Your task to perform on an android device: Clear the cart on target.com. Search for usb-c to usb-a on target.com, select the first entry, add it to the cart, then select checkout. Image 0: 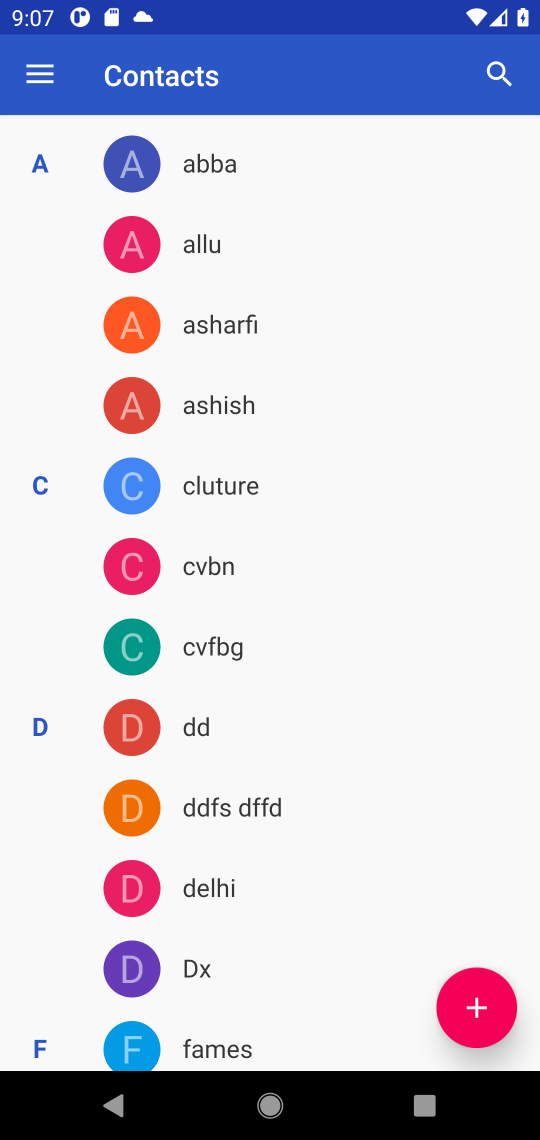
Step 0: press home button
Your task to perform on an android device: Clear the cart on target.com. Search for usb-c to usb-a on target.com, select the first entry, add it to the cart, then select checkout. Image 1: 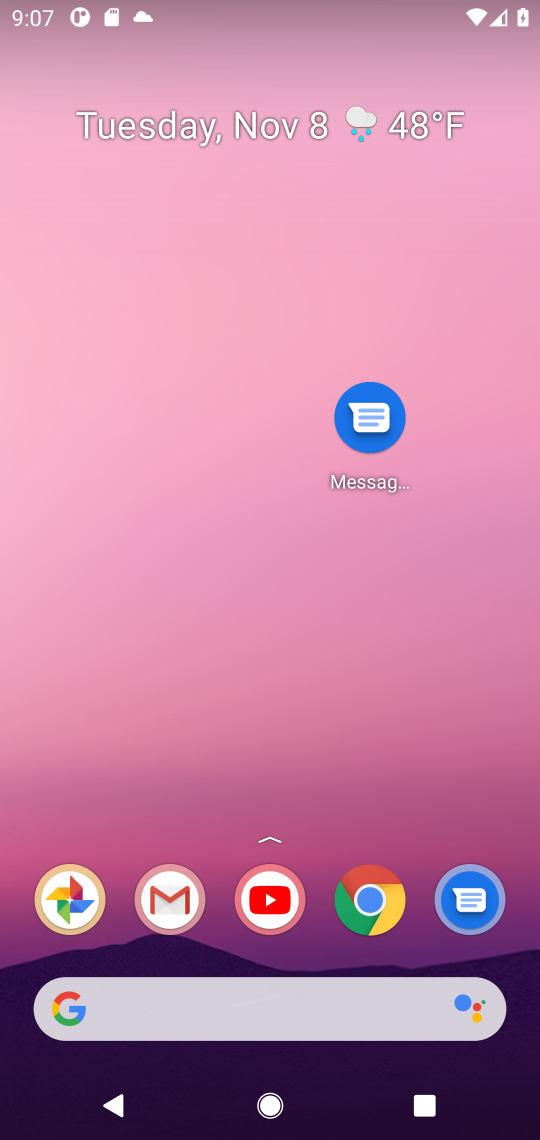
Step 1: drag from (266, 926) to (291, 459)
Your task to perform on an android device: Clear the cart on target.com. Search for usb-c to usb-a on target.com, select the first entry, add it to the cart, then select checkout. Image 2: 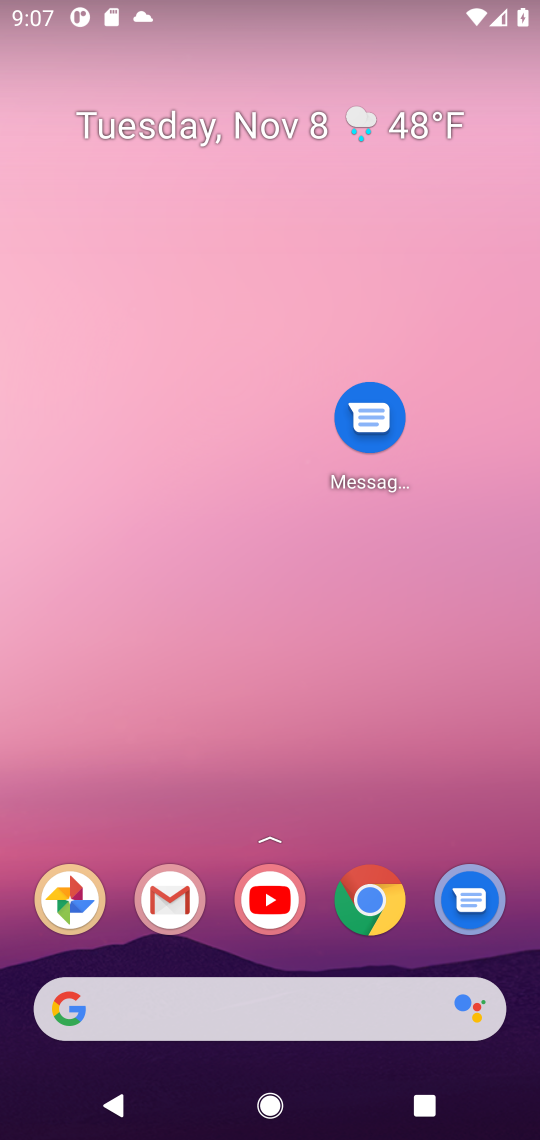
Step 2: drag from (219, 910) to (359, 433)
Your task to perform on an android device: Clear the cart on target.com. Search for usb-c to usb-a on target.com, select the first entry, add it to the cart, then select checkout. Image 3: 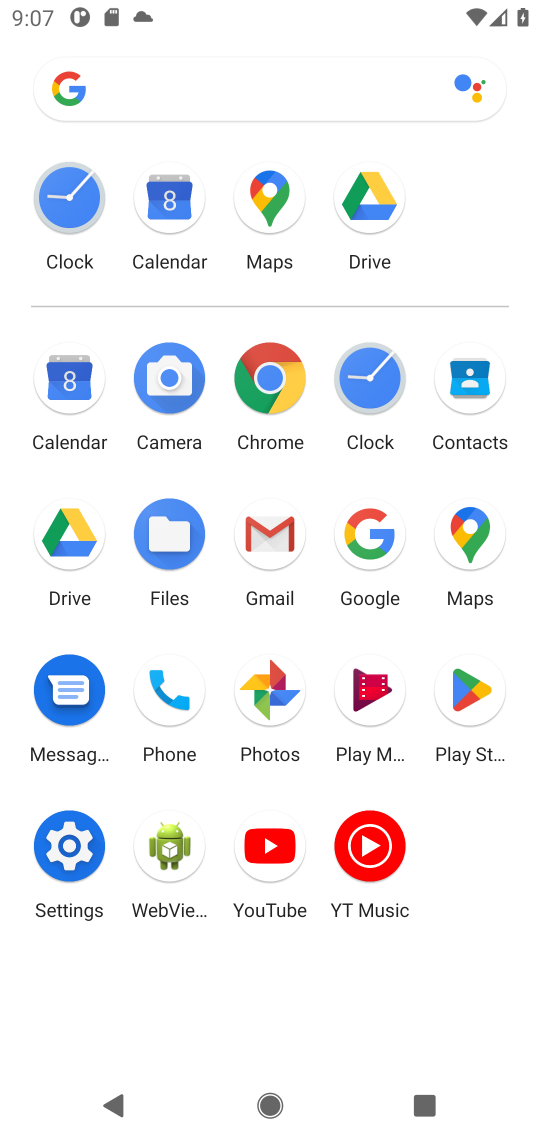
Step 3: click (360, 539)
Your task to perform on an android device: Clear the cart on target.com. Search for usb-c to usb-a on target.com, select the first entry, add it to the cart, then select checkout. Image 4: 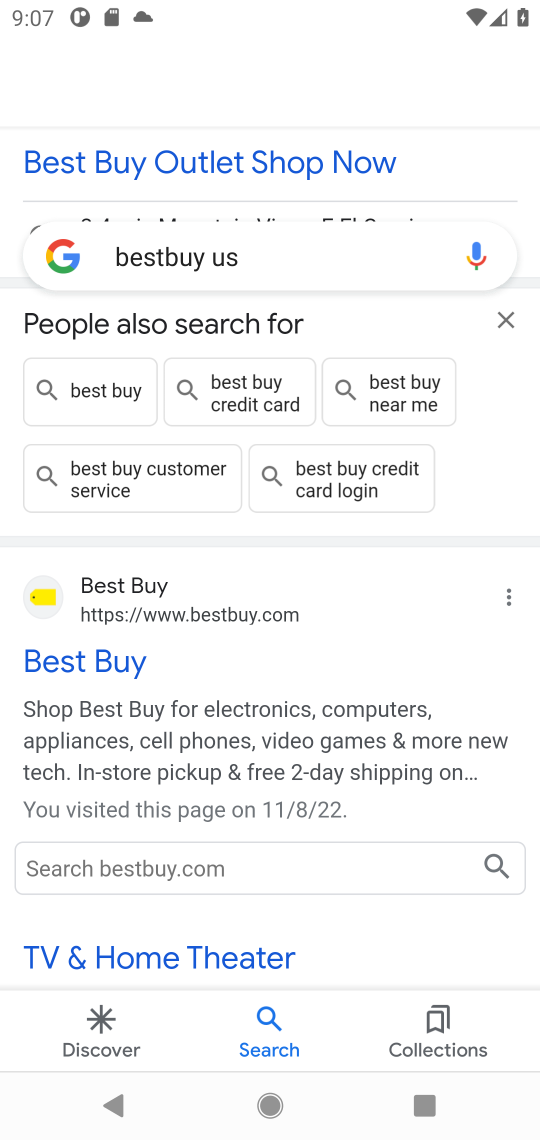
Step 4: click (307, 254)
Your task to perform on an android device: Clear the cart on target.com. Search for usb-c to usb-a on target.com, select the first entry, add it to the cart, then select checkout. Image 5: 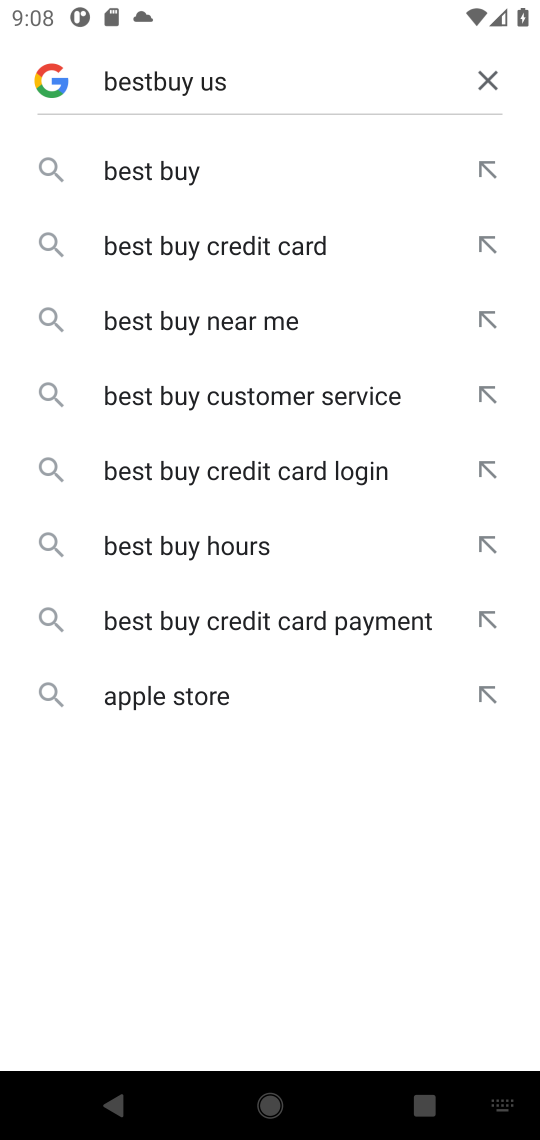
Step 5: click (470, 78)
Your task to perform on an android device: Clear the cart on target.com. Search for usb-c to usb-a on target.com, select the first entry, add it to the cart, then select checkout. Image 6: 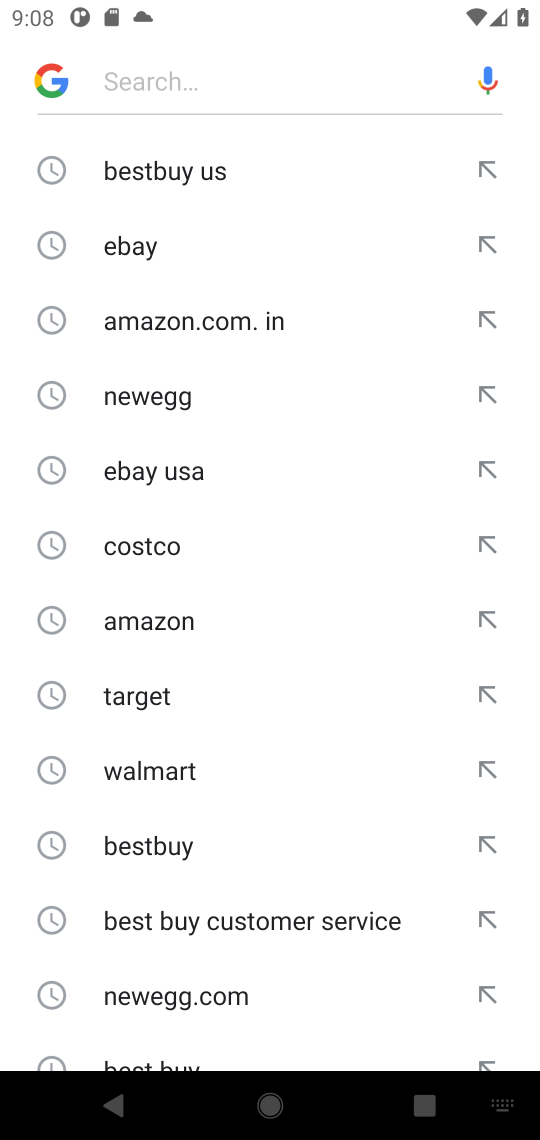
Step 6: click (210, 73)
Your task to perform on an android device: Clear the cart on target.com. Search for usb-c to usb-a on target.com, select the first entry, add it to the cart, then select checkout. Image 7: 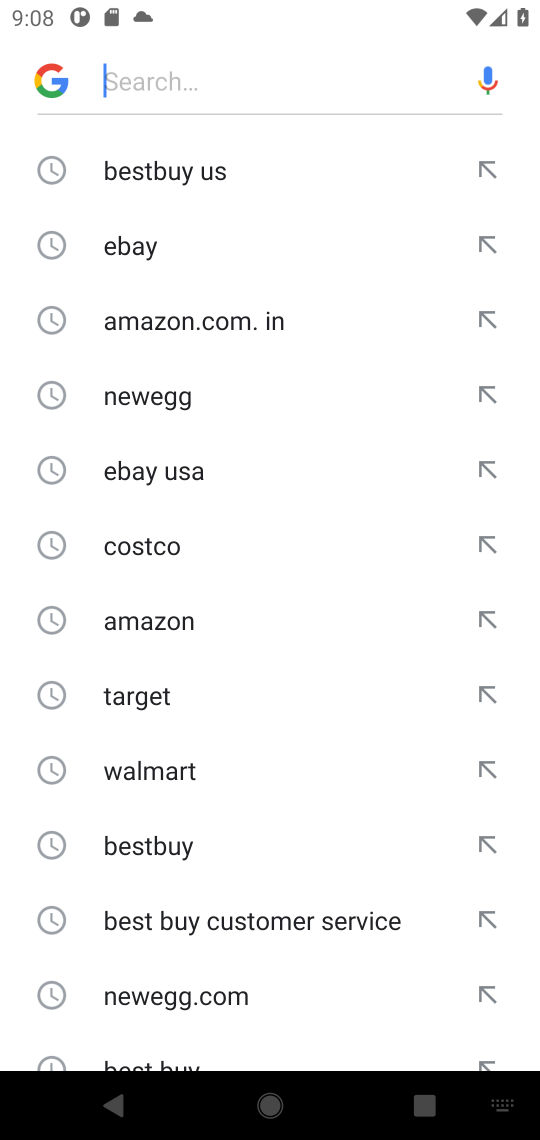
Step 7: type "target "
Your task to perform on an android device: Clear the cart on target.com. Search for usb-c to usb-a on target.com, select the first entry, add it to the cart, then select checkout. Image 8: 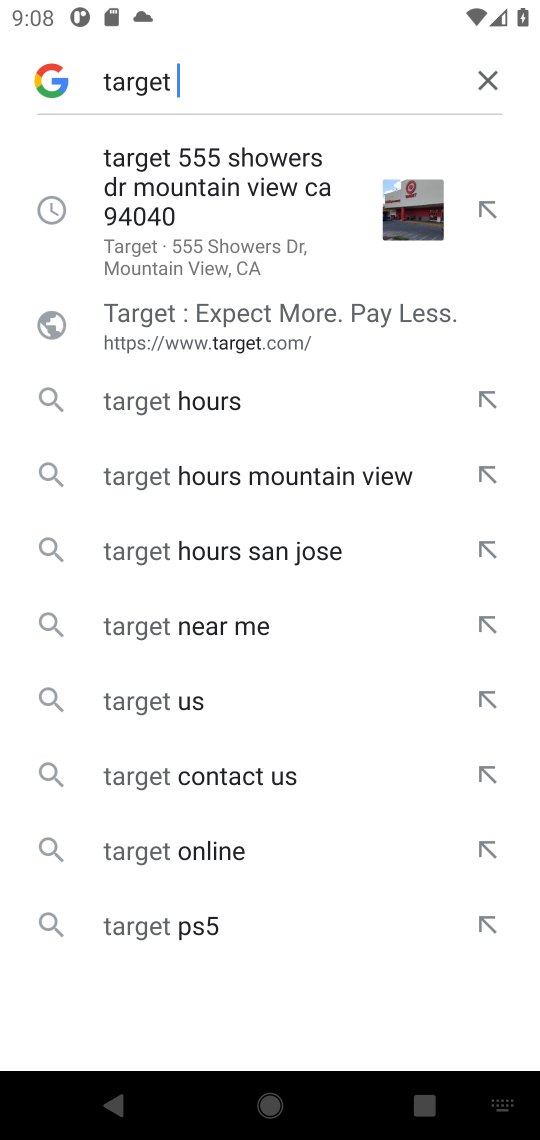
Step 8: click (218, 330)
Your task to perform on an android device: Clear the cart on target.com. Search for usb-c to usb-a on target.com, select the first entry, add it to the cart, then select checkout. Image 9: 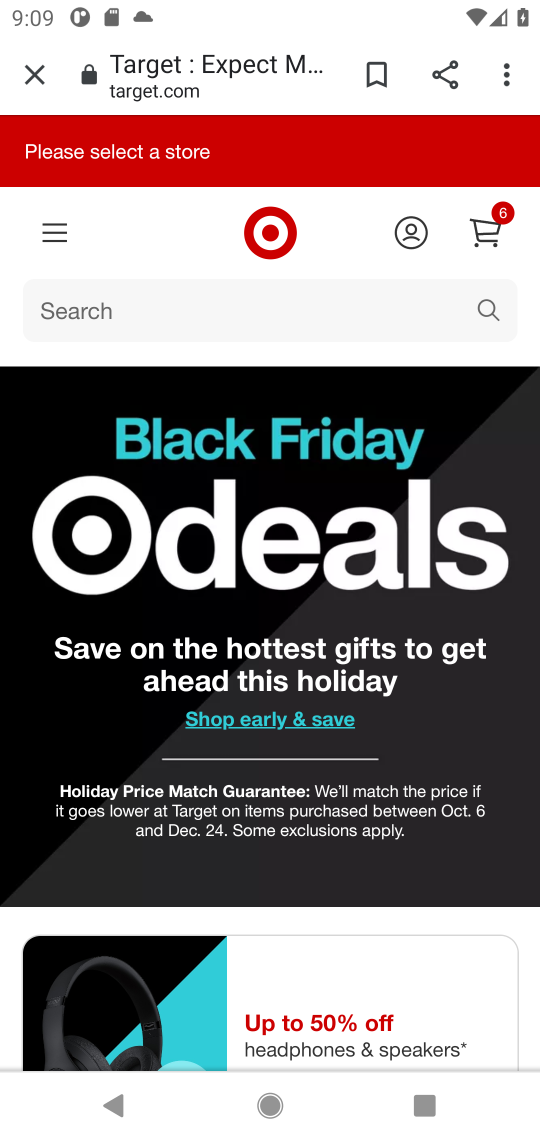
Step 9: click (216, 299)
Your task to perform on an android device: Clear the cart on target.com. Search for usb-c to usb-a on target.com, select the first entry, add it to the cart, then select checkout. Image 10: 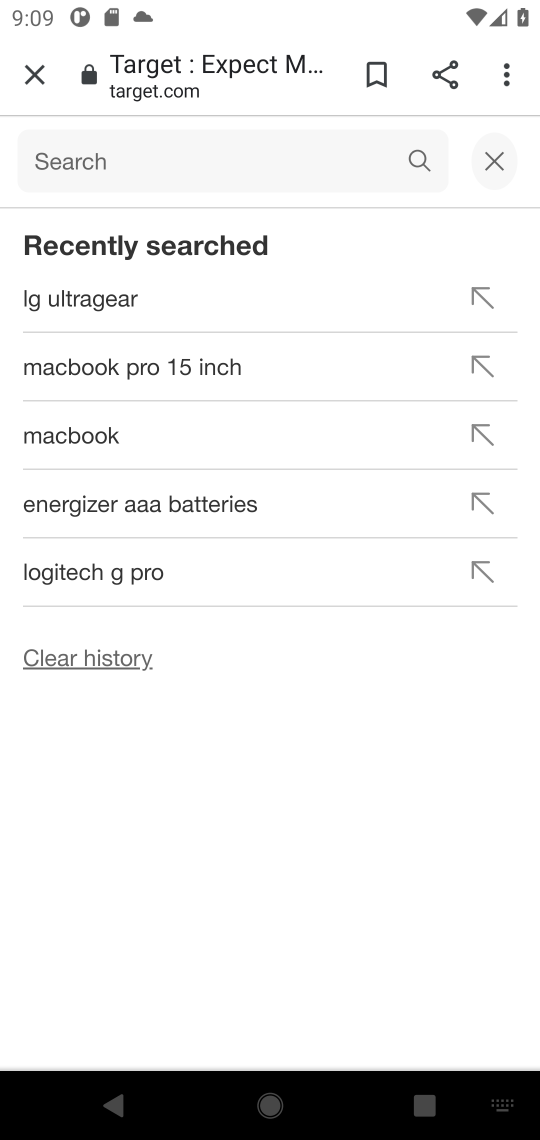
Step 10: type " usb-c to usb-a "
Your task to perform on an android device: Clear the cart on target.com. Search for usb-c to usb-a on target.com, select the first entry, add it to the cart, then select checkout. Image 11: 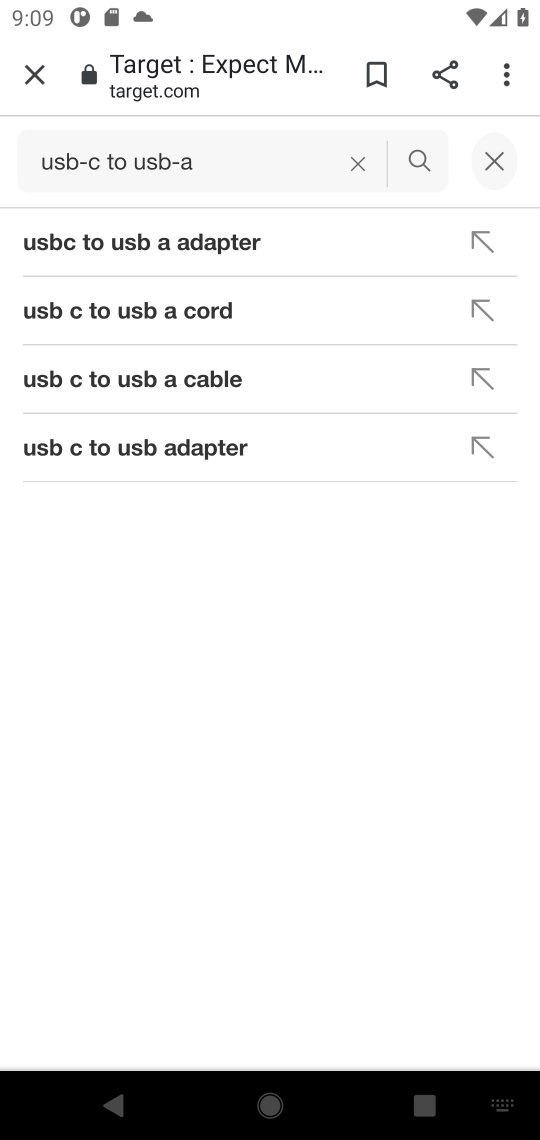
Step 11: click (212, 373)
Your task to perform on an android device: Clear the cart on target.com. Search for usb-c to usb-a on target.com, select the first entry, add it to the cart, then select checkout. Image 12: 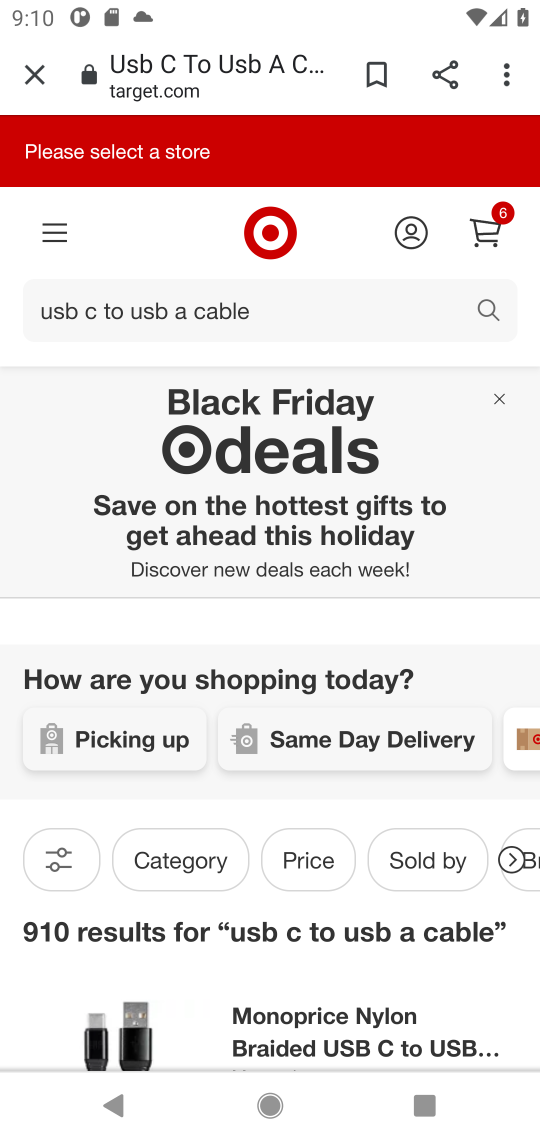
Step 12: drag from (288, 1008) to (348, 332)
Your task to perform on an android device: Clear the cart on target.com. Search for usb-c to usb-a on target.com, select the first entry, add it to the cart, then select checkout. Image 13: 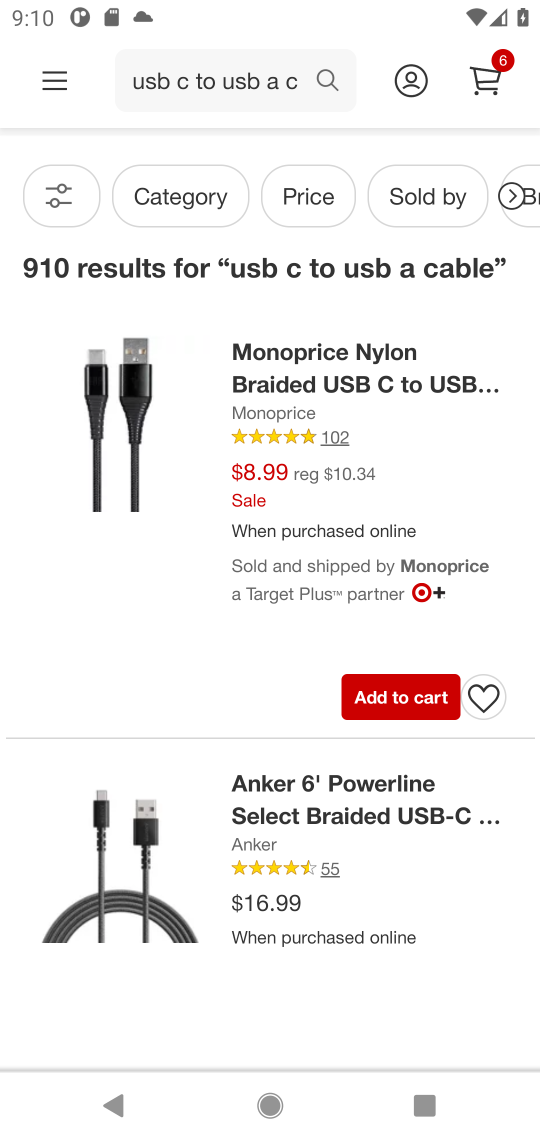
Step 13: click (410, 684)
Your task to perform on an android device: Clear the cart on target.com. Search for usb-c to usb-a on target.com, select the first entry, add it to the cart, then select checkout. Image 14: 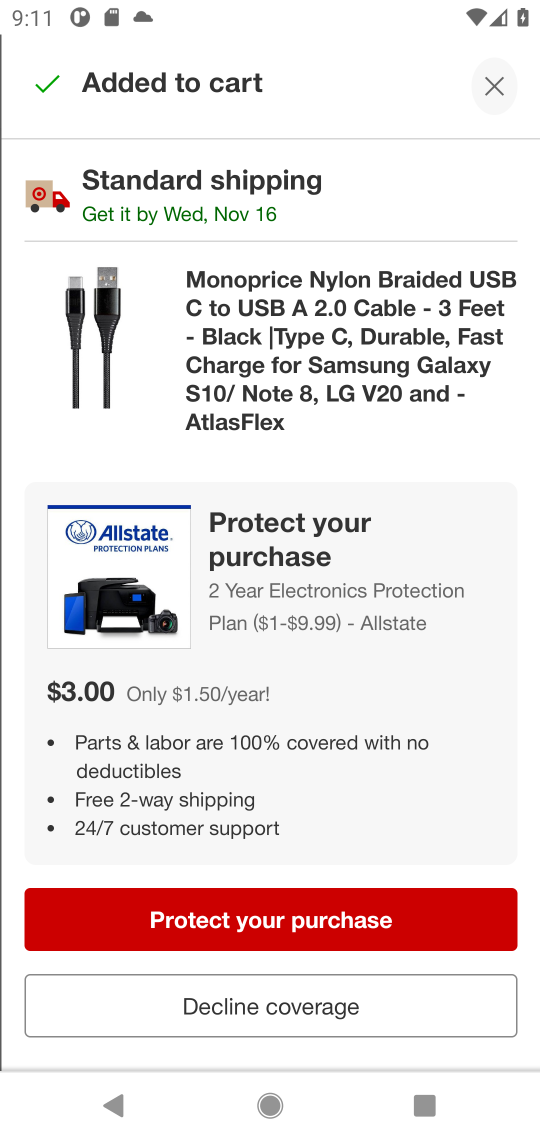
Step 14: task complete